Your task to perform on an android device: Where can I buy a nice beach towel? Image 0: 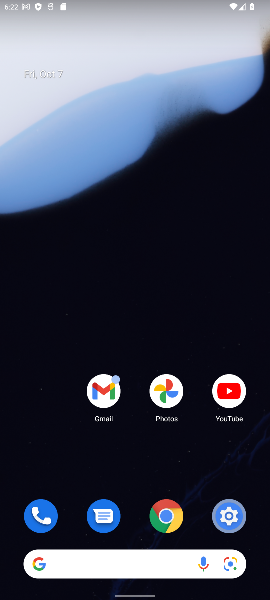
Step 0: drag from (130, 530) to (132, 5)
Your task to perform on an android device: Where can I buy a nice beach towel? Image 1: 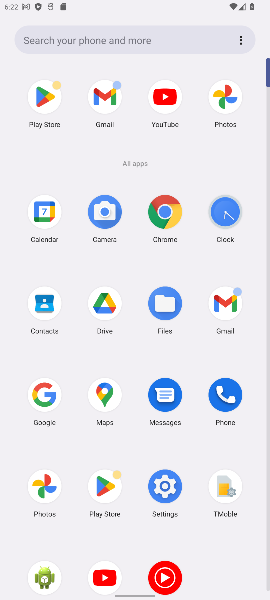
Step 1: press home button
Your task to perform on an android device: Where can I buy a nice beach towel? Image 2: 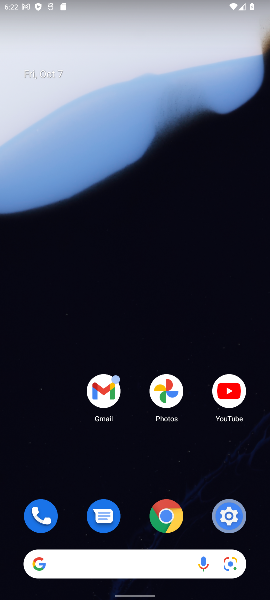
Step 2: drag from (136, 535) to (146, 83)
Your task to perform on an android device: Where can I buy a nice beach towel? Image 3: 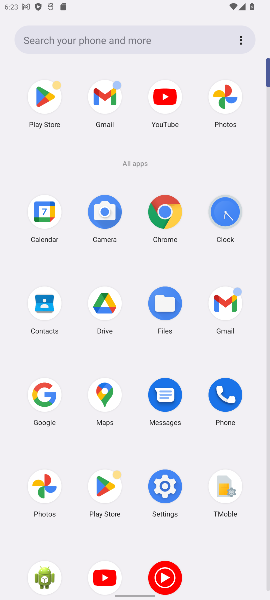
Step 3: press home button
Your task to perform on an android device: Where can I buy a nice beach towel? Image 4: 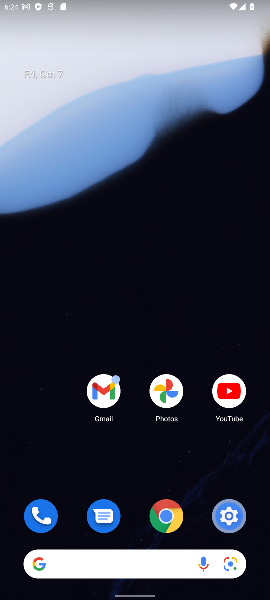
Step 4: drag from (129, 544) to (147, 599)
Your task to perform on an android device: Where can I buy a nice beach towel? Image 5: 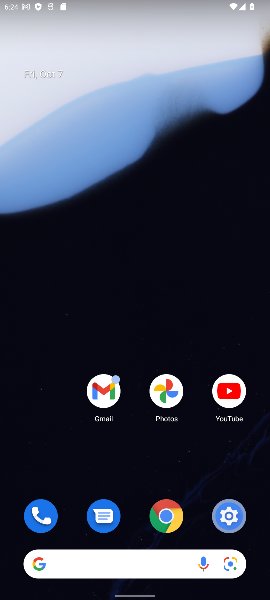
Step 5: click (138, 566)
Your task to perform on an android device: Where can I buy a nice beach towel? Image 6: 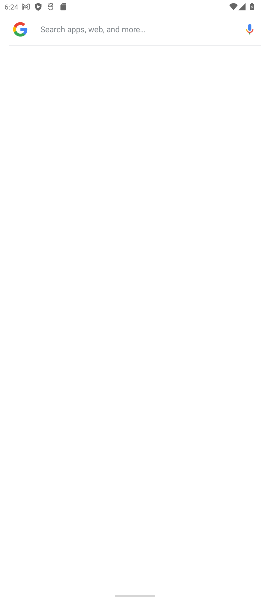
Step 6: type "Where can I buy a nice beach towel?"
Your task to perform on an android device: Where can I buy a nice beach towel? Image 7: 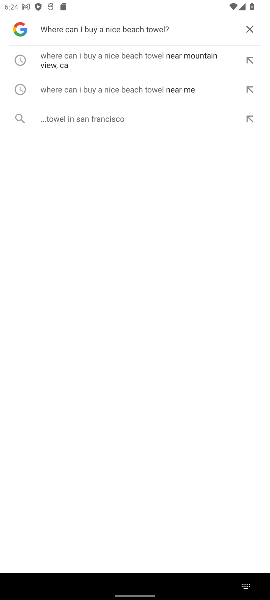
Step 7: click (120, 60)
Your task to perform on an android device: Where can I buy a nice beach towel? Image 8: 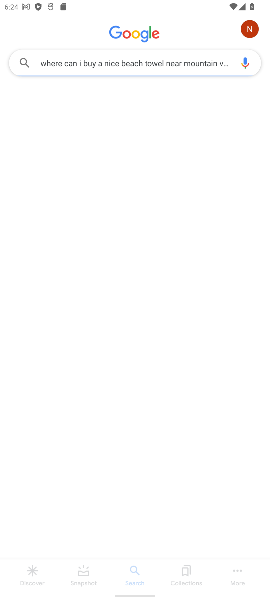
Step 8: task complete